Your task to perform on an android device: open wifi settings Image 0: 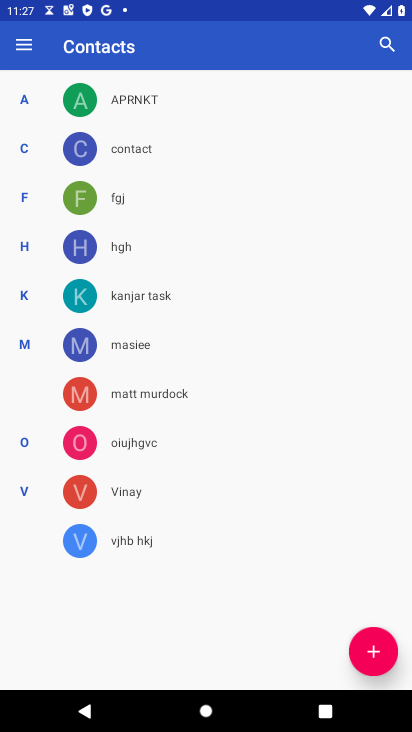
Step 0: press home button
Your task to perform on an android device: open wifi settings Image 1: 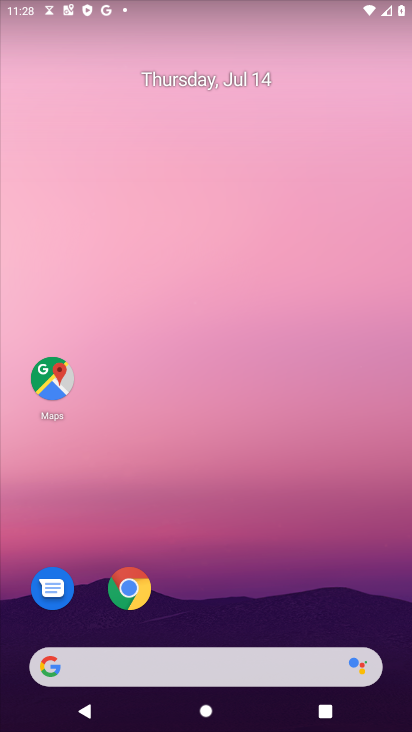
Step 1: drag from (181, 655) to (319, 6)
Your task to perform on an android device: open wifi settings Image 2: 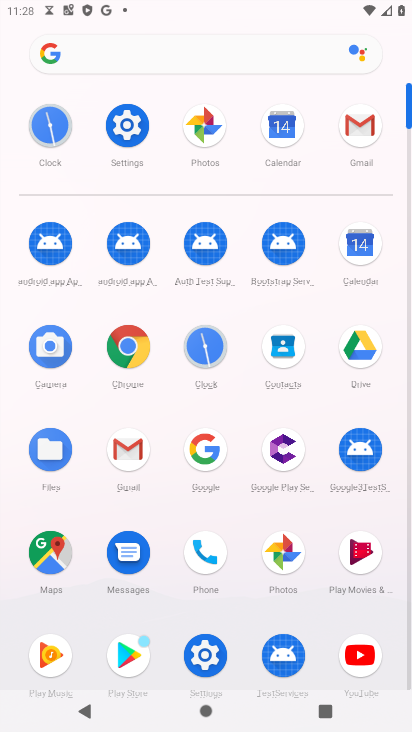
Step 2: click (134, 131)
Your task to perform on an android device: open wifi settings Image 3: 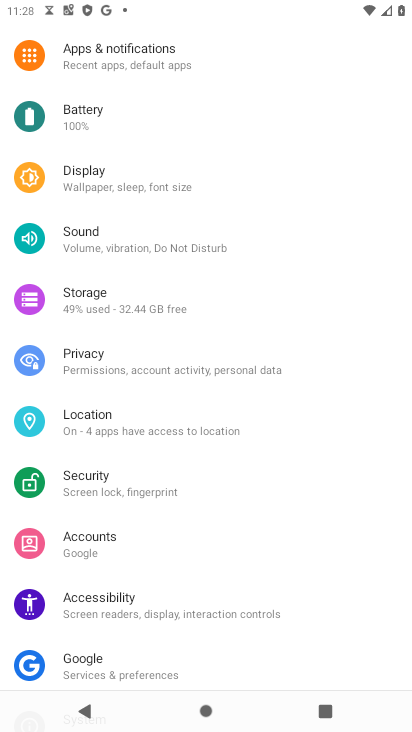
Step 3: drag from (284, 83) to (253, 589)
Your task to perform on an android device: open wifi settings Image 4: 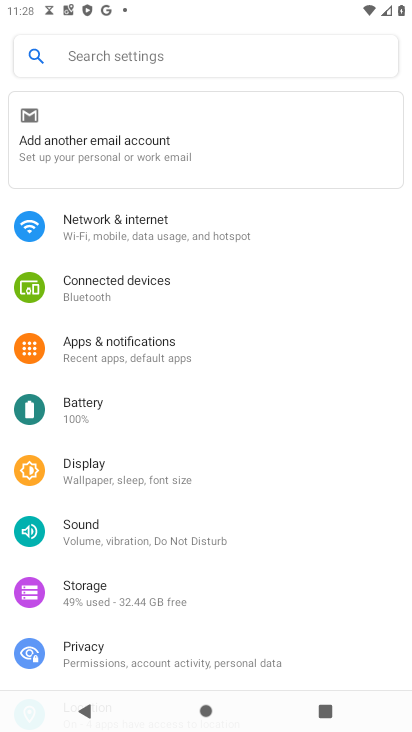
Step 4: click (157, 223)
Your task to perform on an android device: open wifi settings Image 5: 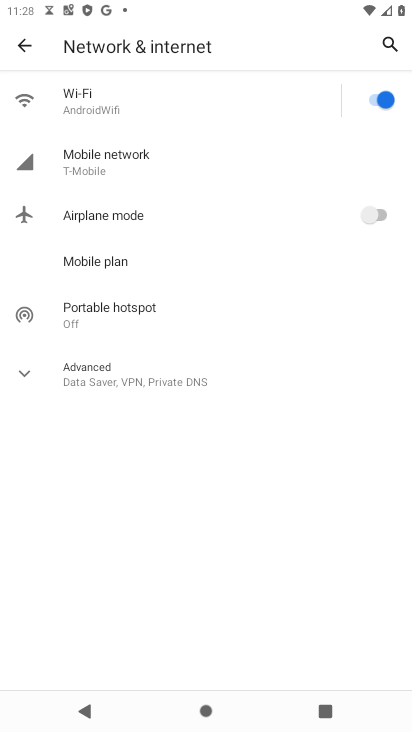
Step 5: click (98, 103)
Your task to perform on an android device: open wifi settings Image 6: 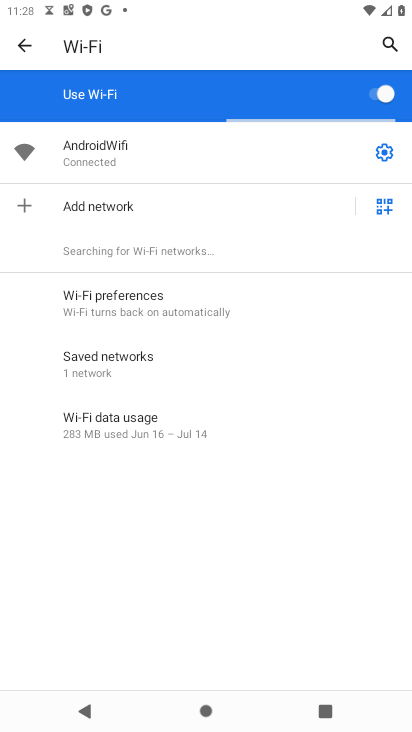
Step 6: task complete